Your task to perform on an android device: Open the phone app and click the voicemail tab. Image 0: 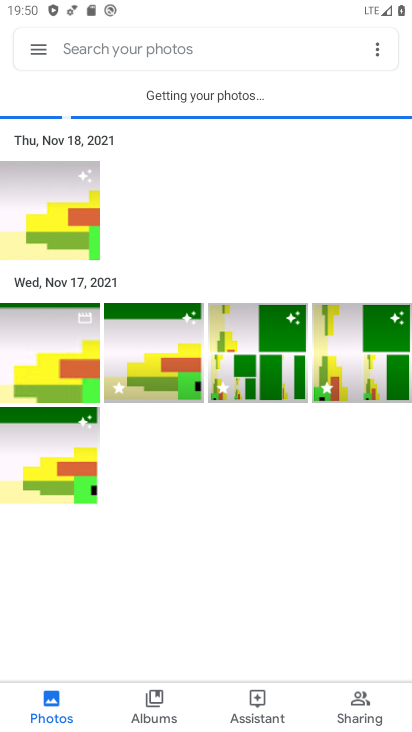
Step 0: press home button
Your task to perform on an android device: Open the phone app and click the voicemail tab. Image 1: 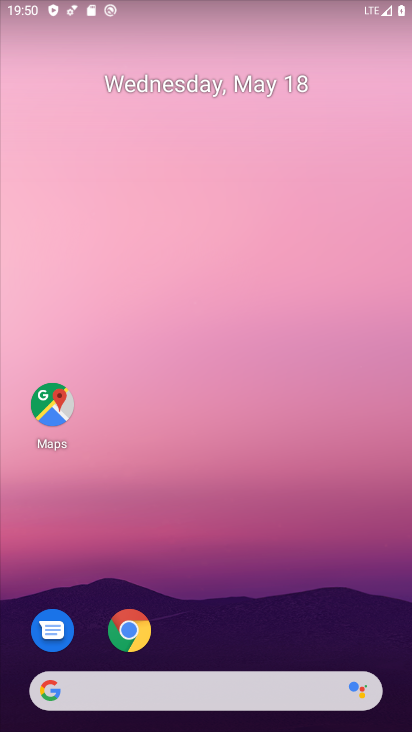
Step 1: drag from (312, 172) to (343, 58)
Your task to perform on an android device: Open the phone app and click the voicemail tab. Image 2: 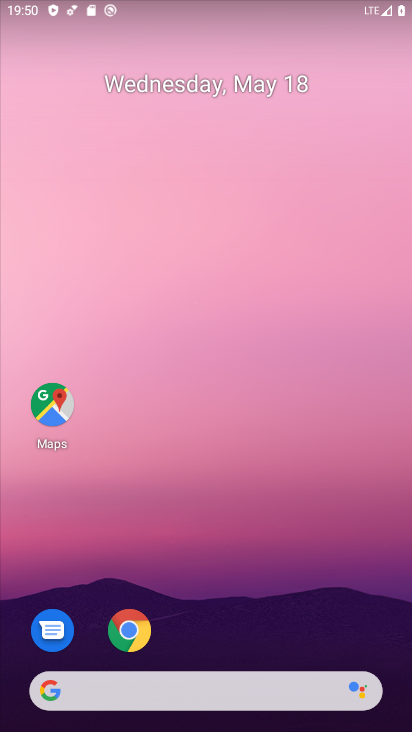
Step 2: drag from (258, 689) to (410, 142)
Your task to perform on an android device: Open the phone app and click the voicemail tab. Image 3: 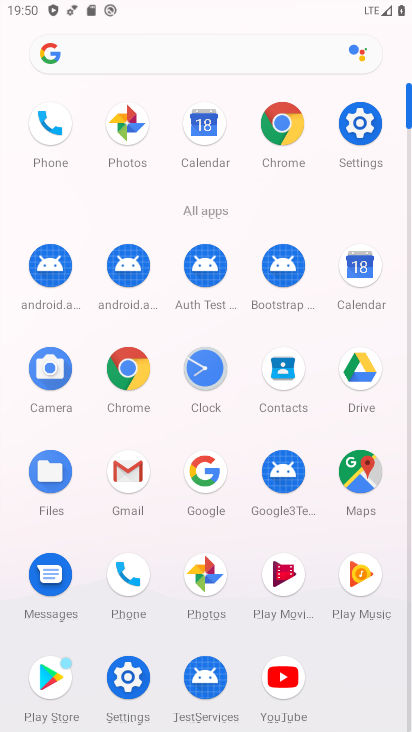
Step 3: click (125, 578)
Your task to perform on an android device: Open the phone app and click the voicemail tab. Image 4: 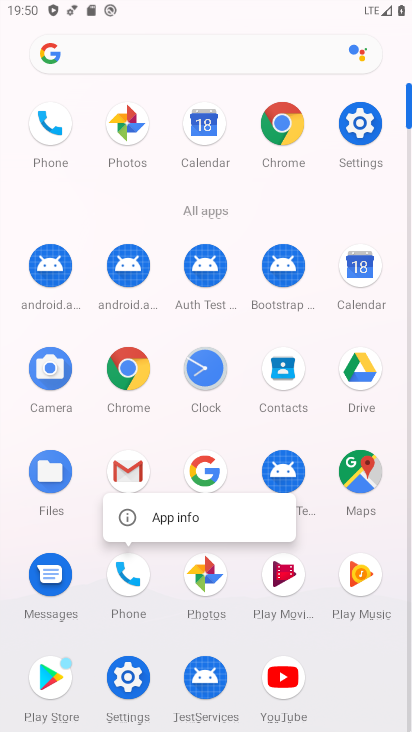
Step 4: click (134, 576)
Your task to perform on an android device: Open the phone app and click the voicemail tab. Image 5: 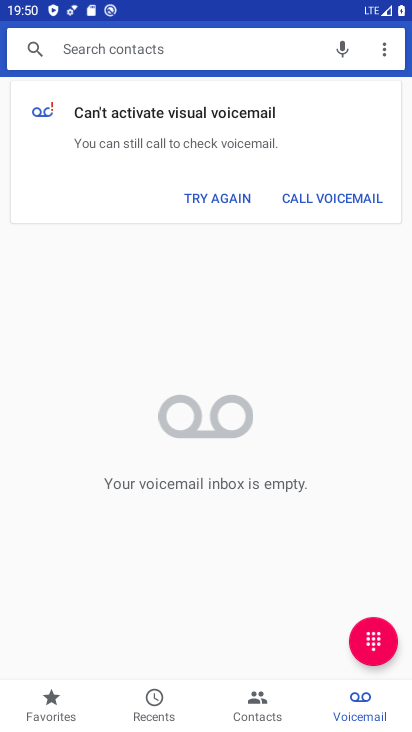
Step 5: click (344, 717)
Your task to perform on an android device: Open the phone app and click the voicemail tab. Image 6: 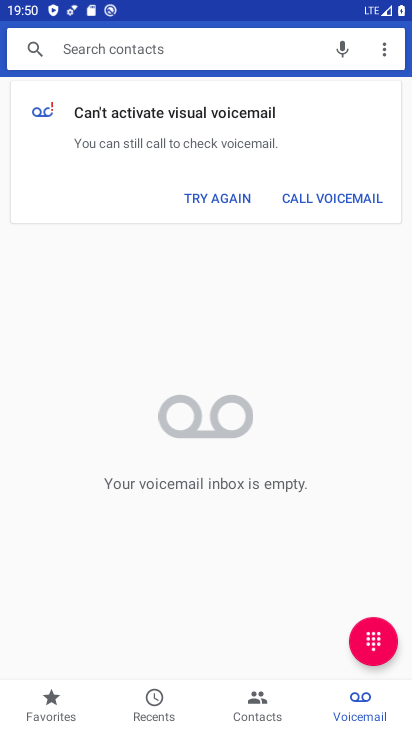
Step 6: task complete